Your task to perform on an android device: Play the last video I watched on Youtube Image 0: 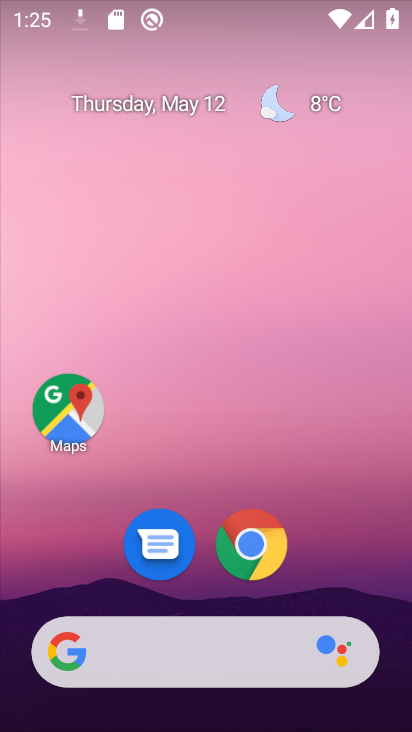
Step 0: drag from (214, 552) to (274, 4)
Your task to perform on an android device: Play the last video I watched on Youtube Image 1: 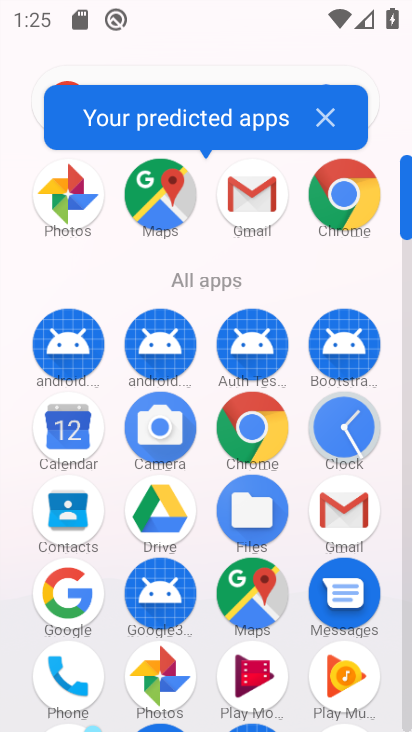
Step 1: drag from (200, 605) to (240, 133)
Your task to perform on an android device: Play the last video I watched on Youtube Image 2: 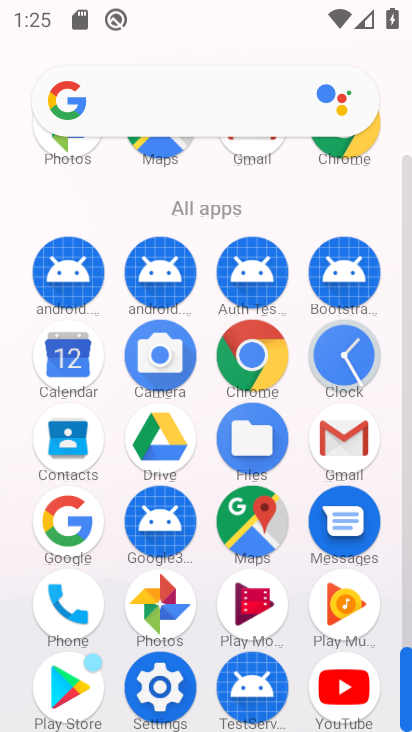
Step 2: click (348, 681)
Your task to perform on an android device: Play the last video I watched on Youtube Image 3: 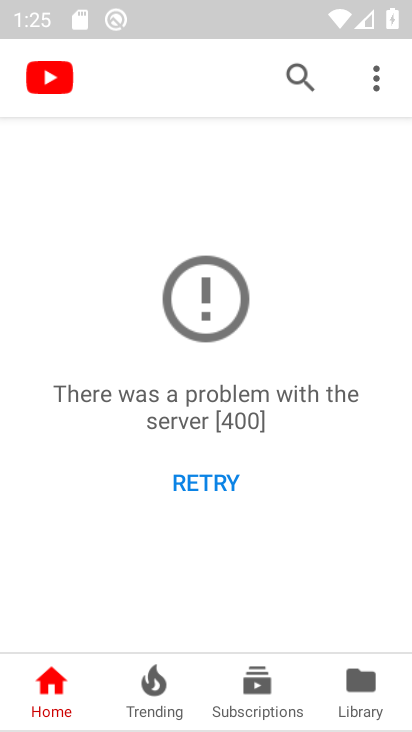
Step 3: click (351, 689)
Your task to perform on an android device: Play the last video I watched on Youtube Image 4: 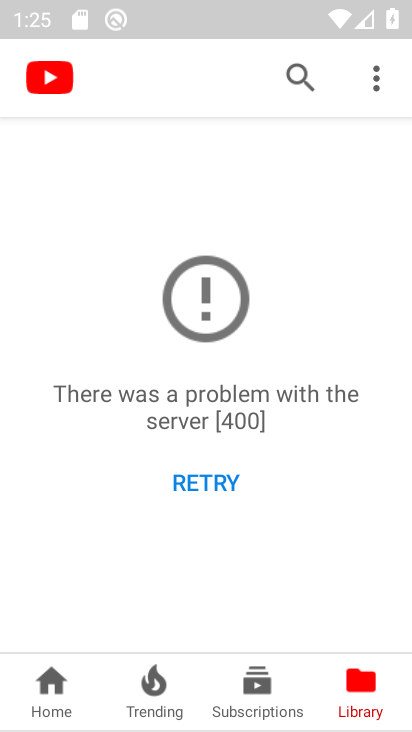
Step 4: click (351, 689)
Your task to perform on an android device: Play the last video I watched on Youtube Image 5: 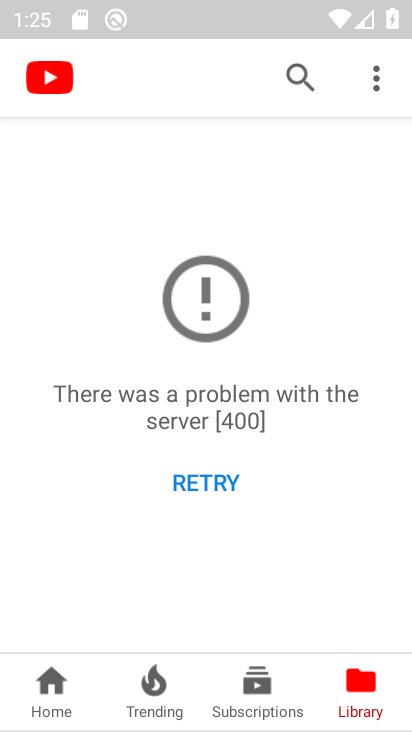
Step 5: task complete